Your task to perform on an android device: snooze an email in the gmail app Image 0: 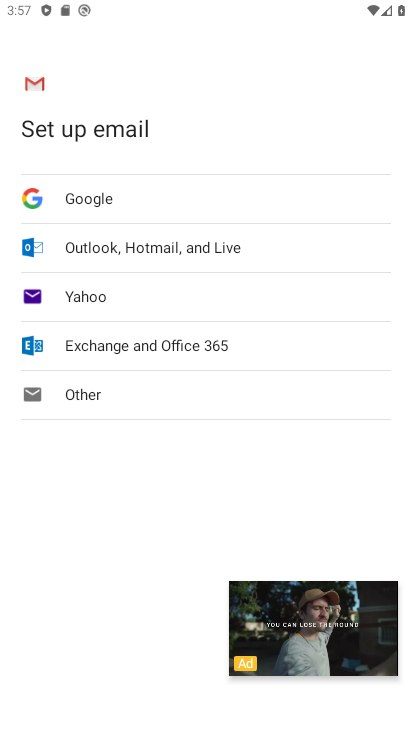
Step 0: press home button
Your task to perform on an android device: snooze an email in the gmail app Image 1: 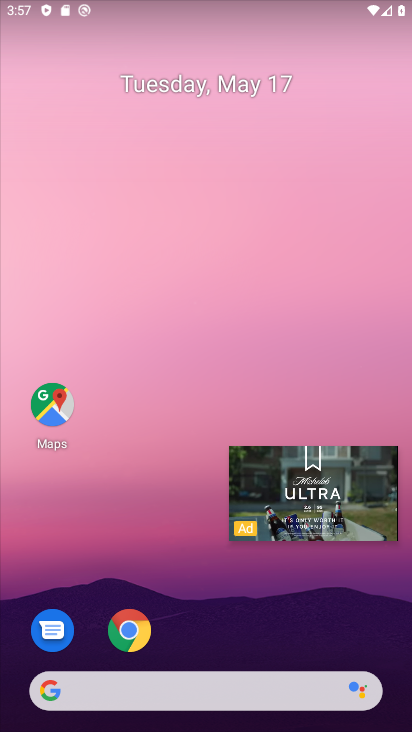
Step 1: drag from (332, 479) to (235, 676)
Your task to perform on an android device: snooze an email in the gmail app Image 2: 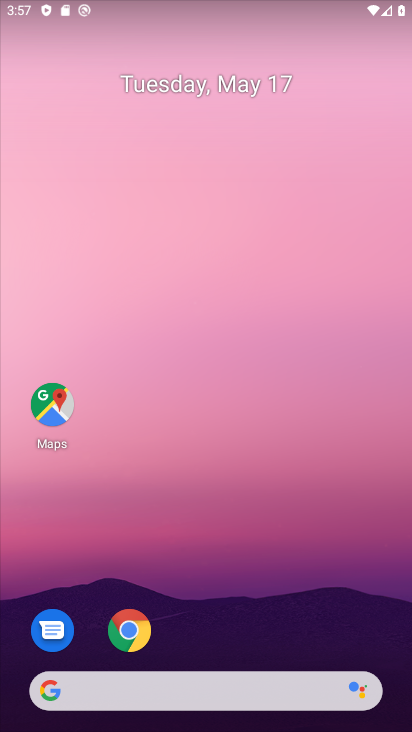
Step 2: drag from (227, 685) to (232, 334)
Your task to perform on an android device: snooze an email in the gmail app Image 3: 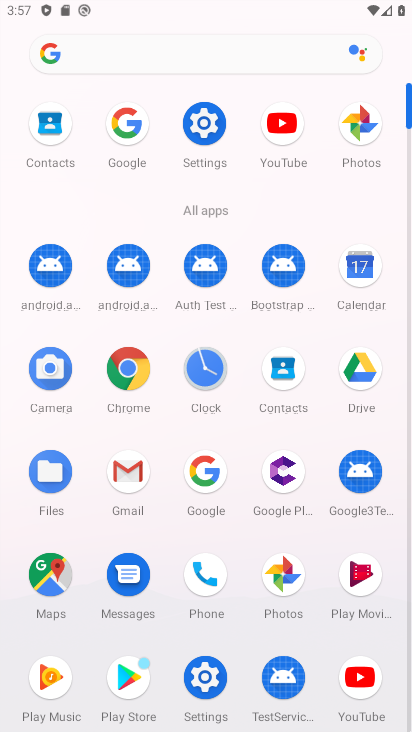
Step 3: click (139, 476)
Your task to perform on an android device: snooze an email in the gmail app Image 4: 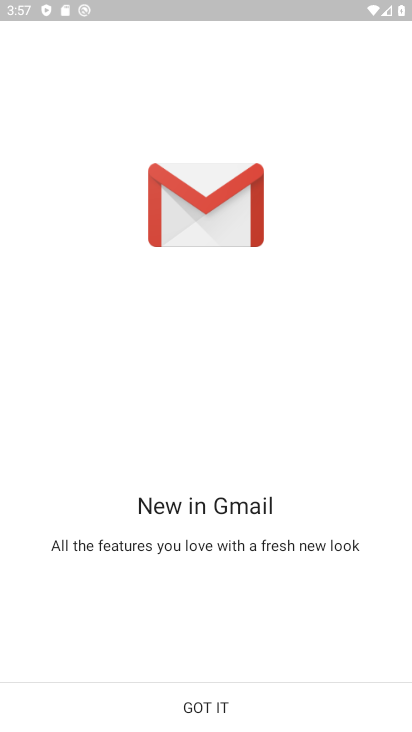
Step 4: click (204, 703)
Your task to perform on an android device: snooze an email in the gmail app Image 5: 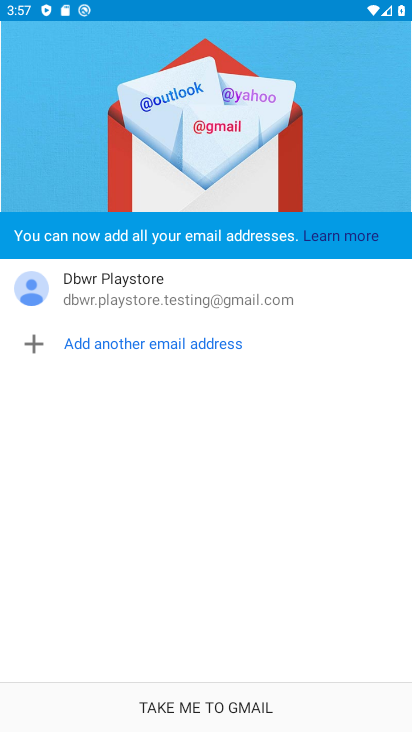
Step 5: click (176, 718)
Your task to perform on an android device: snooze an email in the gmail app Image 6: 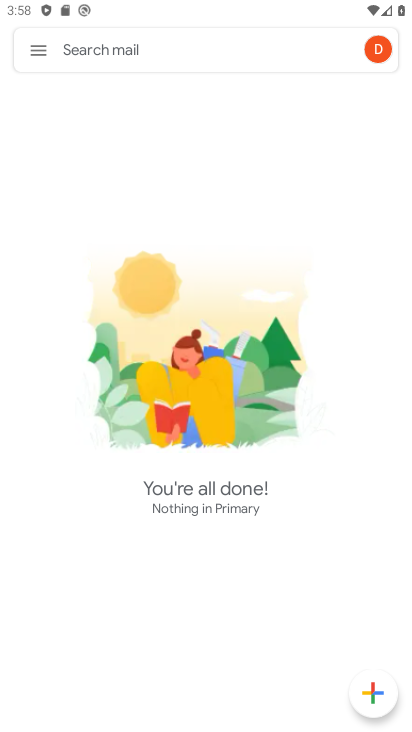
Step 6: task complete